Your task to perform on an android device: Open Youtube and go to "Your channel" Image 0: 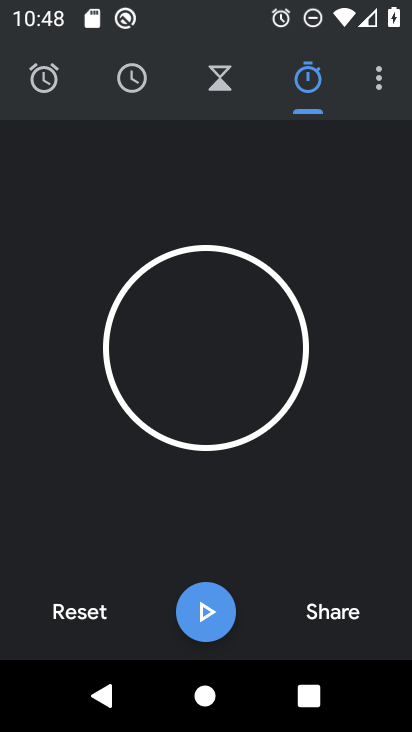
Step 0: press home button
Your task to perform on an android device: Open Youtube and go to "Your channel" Image 1: 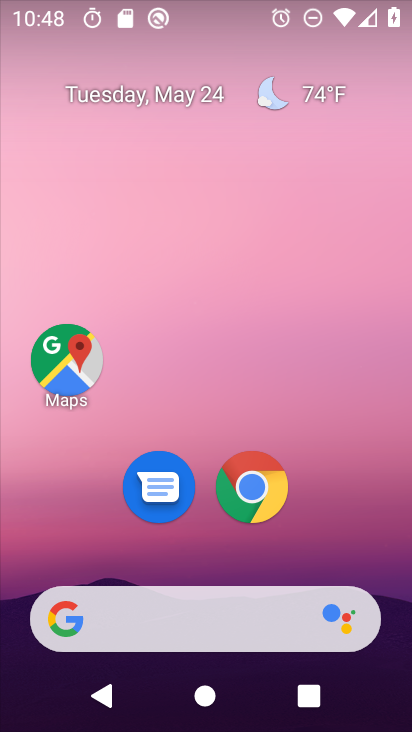
Step 1: drag from (379, 585) to (395, 487)
Your task to perform on an android device: Open Youtube and go to "Your channel" Image 2: 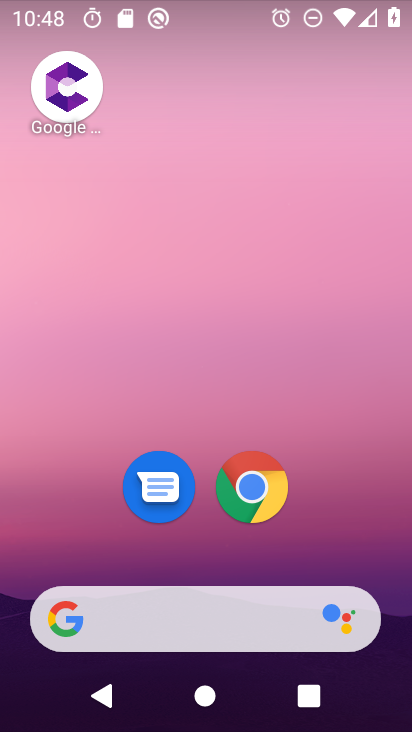
Step 2: drag from (393, 589) to (387, 16)
Your task to perform on an android device: Open Youtube and go to "Your channel" Image 3: 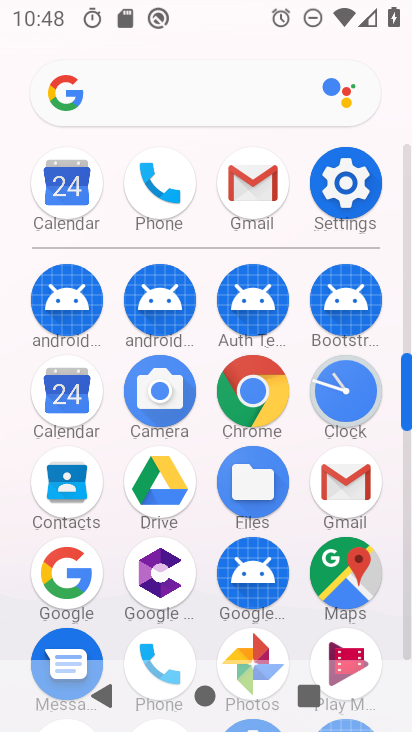
Step 3: drag from (405, 408) to (404, 302)
Your task to perform on an android device: Open Youtube and go to "Your channel" Image 4: 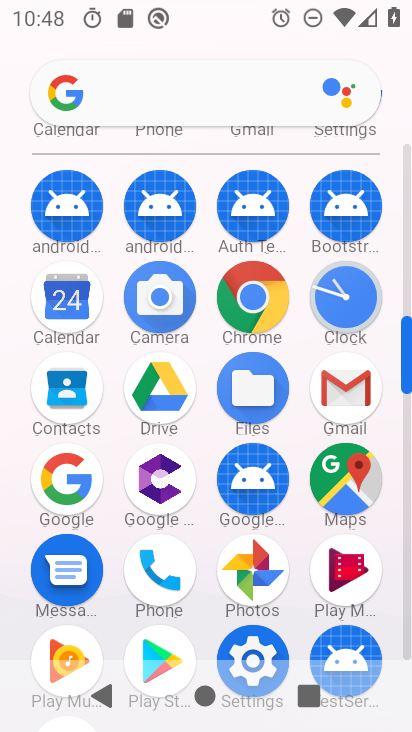
Step 4: drag from (406, 517) to (406, 483)
Your task to perform on an android device: Open Youtube and go to "Your channel" Image 5: 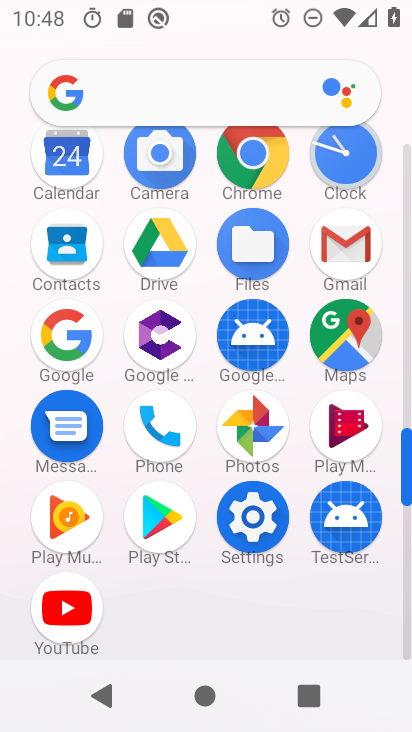
Step 5: click (70, 615)
Your task to perform on an android device: Open Youtube and go to "Your channel" Image 6: 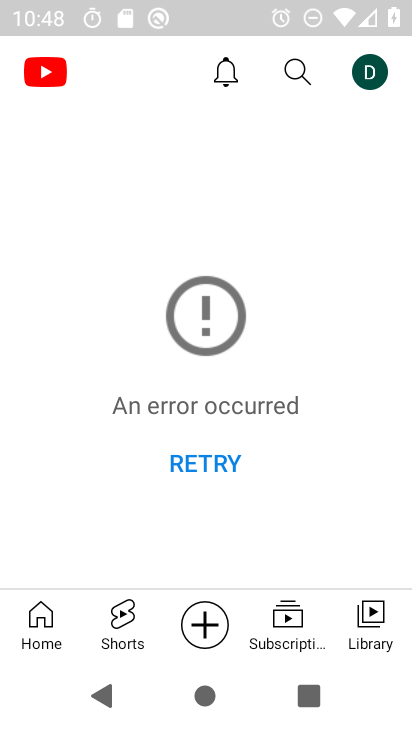
Step 6: click (370, 81)
Your task to perform on an android device: Open Youtube and go to "Your channel" Image 7: 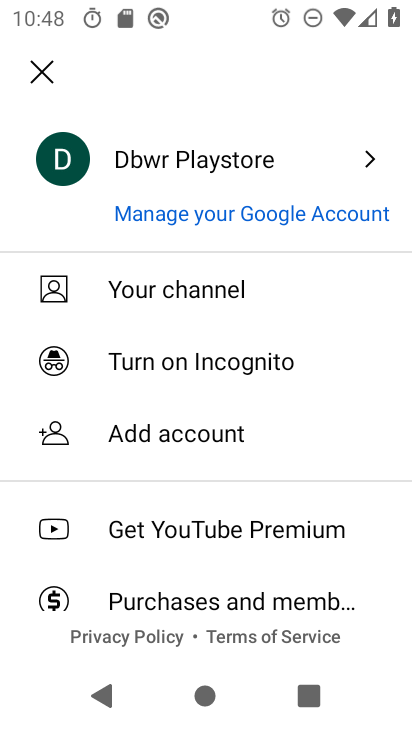
Step 7: click (153, 284)
Your task to perform on an android device: Open Youtube and go to "Your channel" Image 8: 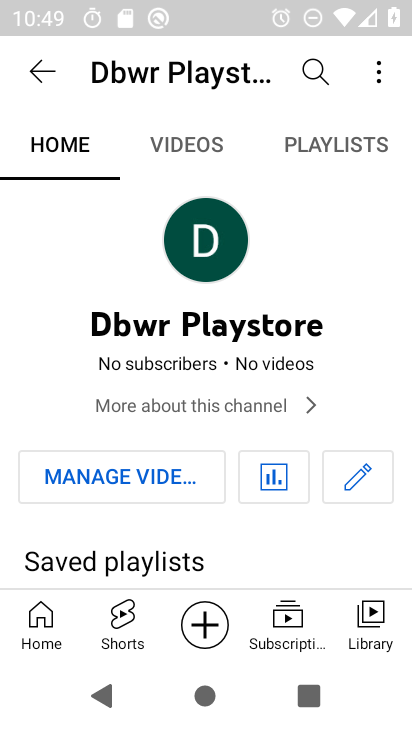
Step 8: task complete